Your task to perform on an android device: turn off priority inbox in the gmail app Image 0: 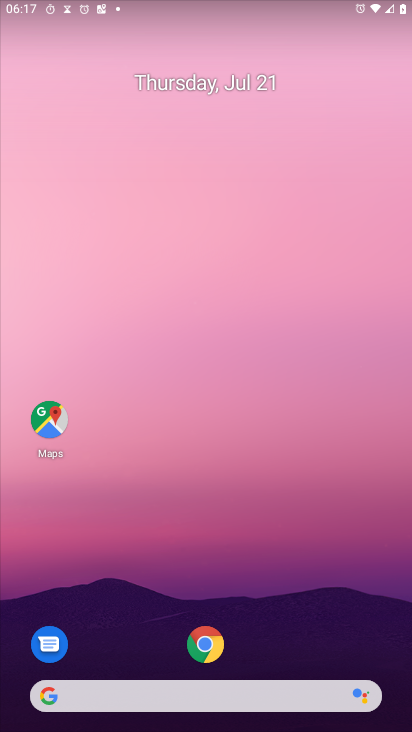
Step 0: press home button
Your task to perform on an android device: turn off priority inbox in the gmail app Image 1: 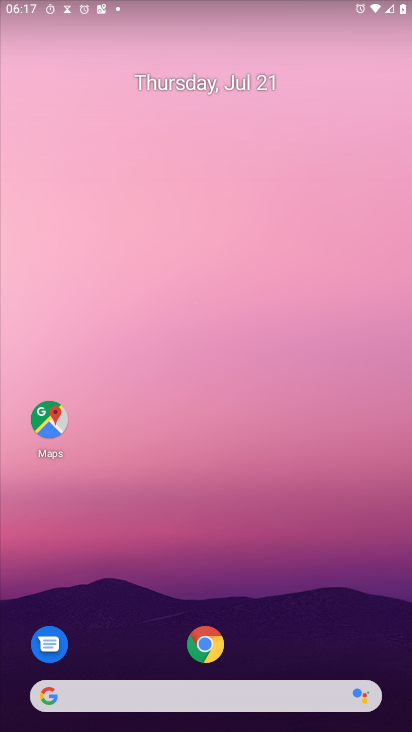
Step 1: drag from (301, 629) to (335, 5)
Your task to perform on an android device: turn off priority inbox in the gmail app Image 2: 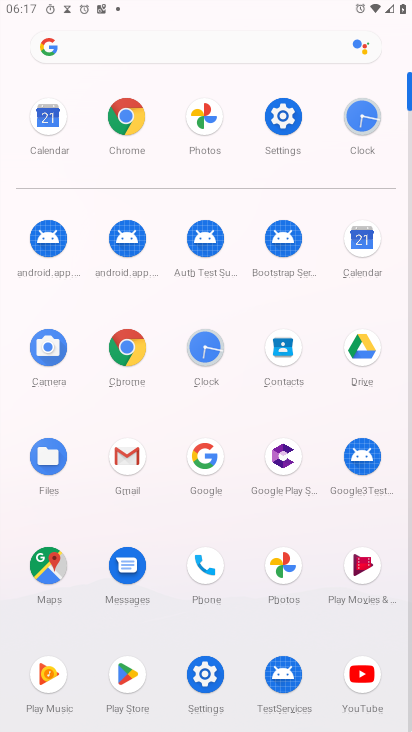
Step 2: click (129, 461)
Your task to perform on an android device: turn off priority inbox in the gmail app Image 3: 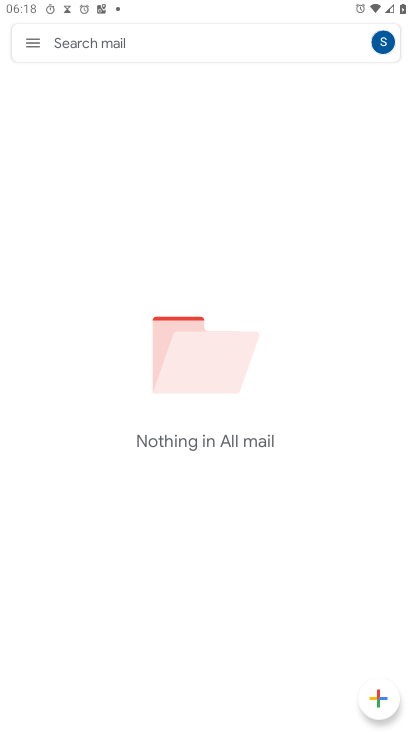
Step 3: click (35, 50)
Your task to perform on an android device: turn off priority inbox in the gmail app Image 4: 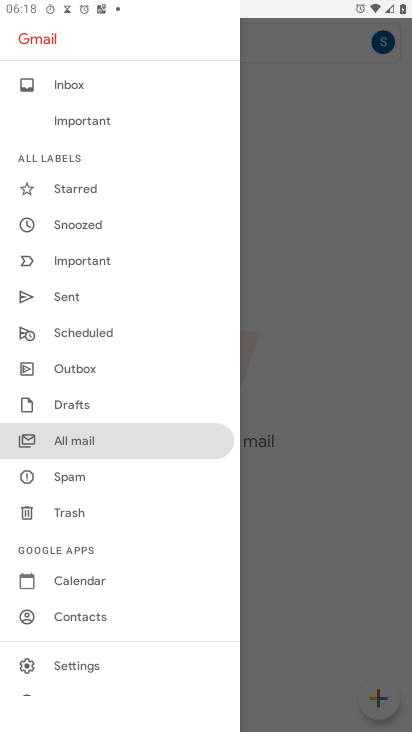
Step 4: click (82, 663)
Your task to perform on an android device: turn off priority inbox in the gmail app Image 5: 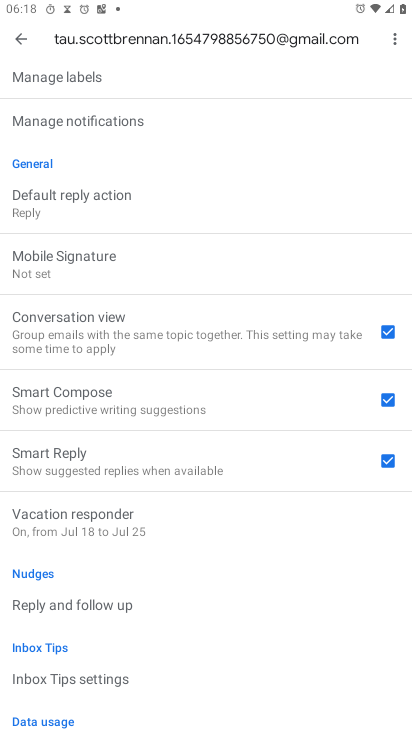
Step 5: click (18, 37)
Your task to perform on an android device: turn off priority inbox in the gmail app Image 6: 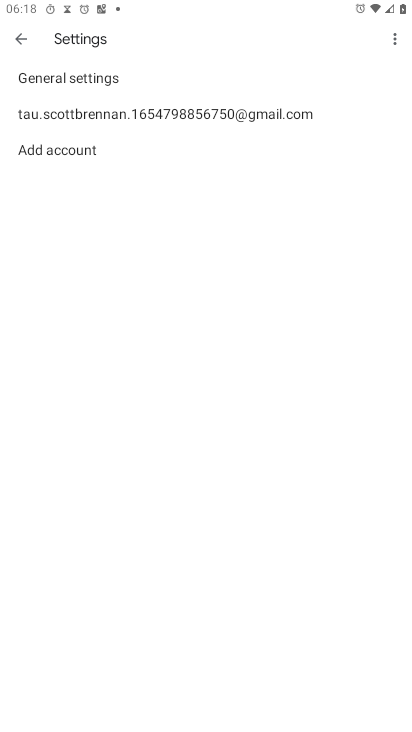
Step 6: click (60, 117)
Your task to perform on an android device: turn off priority inbox in the gmail app Image 7: 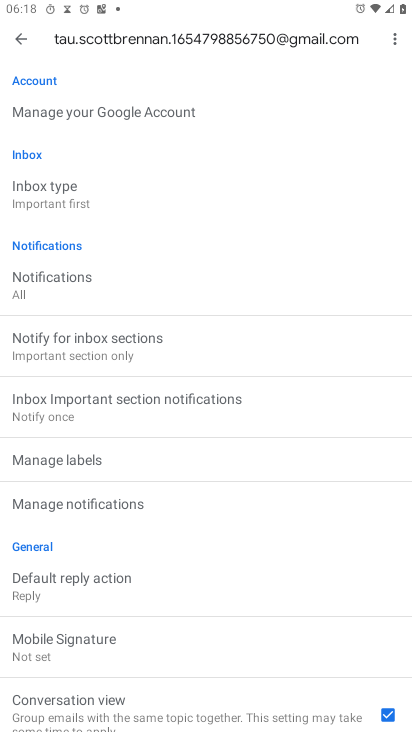
Step 7: click (34, 187)
Your task to perform on an android device: turn off priority inbox in the gmail app Image 8: 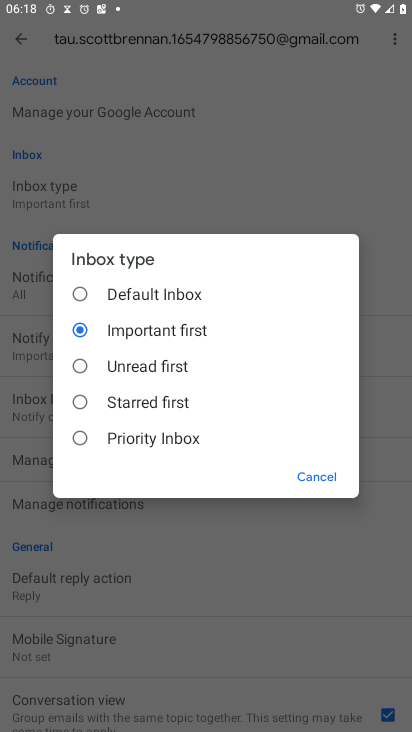
Step 8: click (173, 292)
Your task to perform on an android device: turn off priority inbox in the gmail app Image 9: 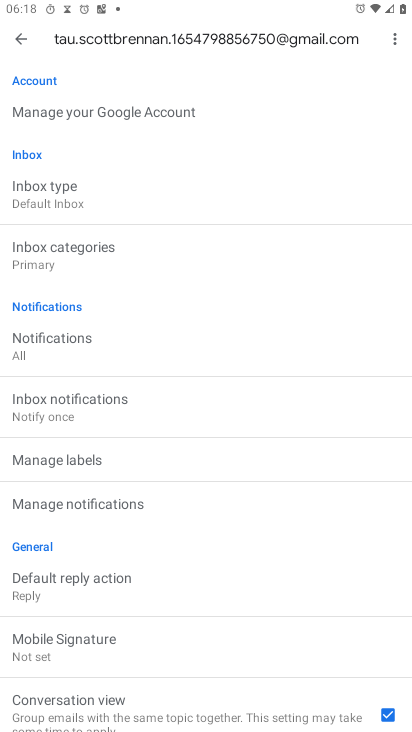
Step 9: task complete